Your task to perform on an android device: check android version Image 0: 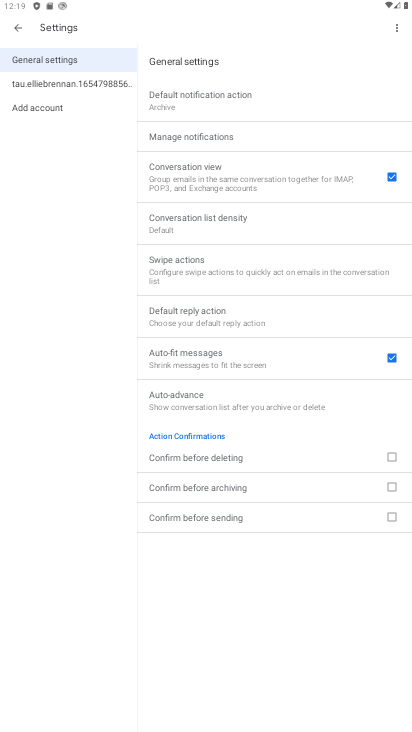
Step 0: press home button
Your task to perform on an android device: check android version Image 1: 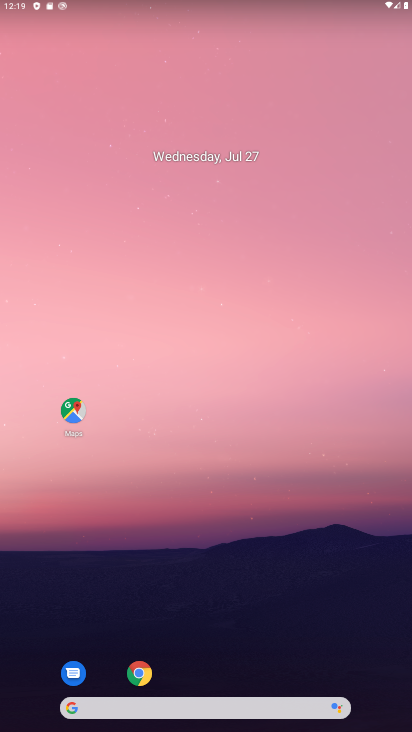
Step 1: drag from (325, 593) to (295, 124)
Your task to perform on an android device: check android version Image 2: 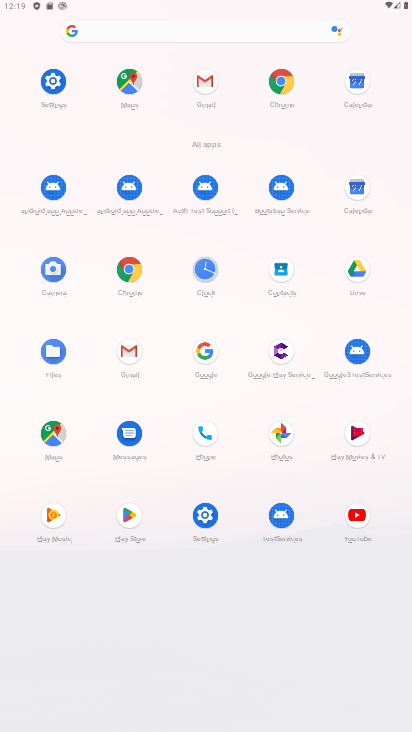
Step 2: click (44, 81)
Your task to perform on an android device: check android version Image 3: 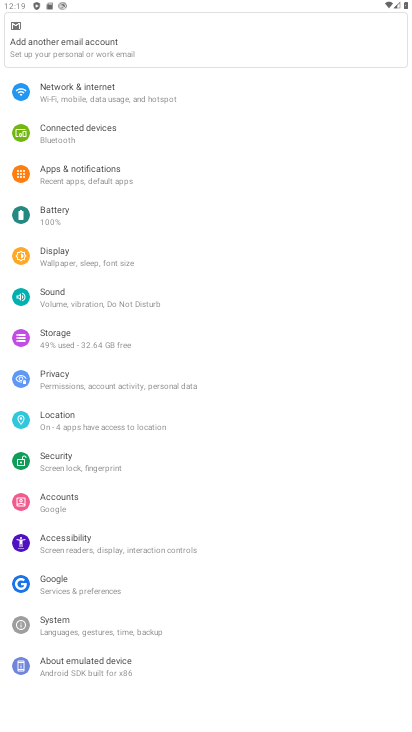
Step 3: click (87, 658)
Your task to perform on an android device: check android version Image 4: 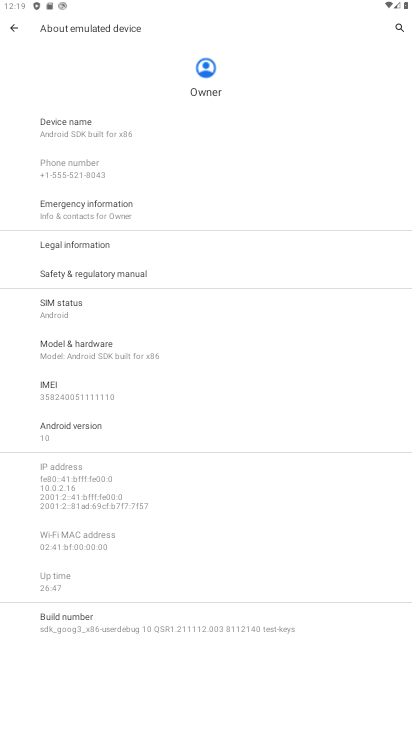
Step 4: click (49, 433)
Your task to perform on an android device: check android version Image 5: 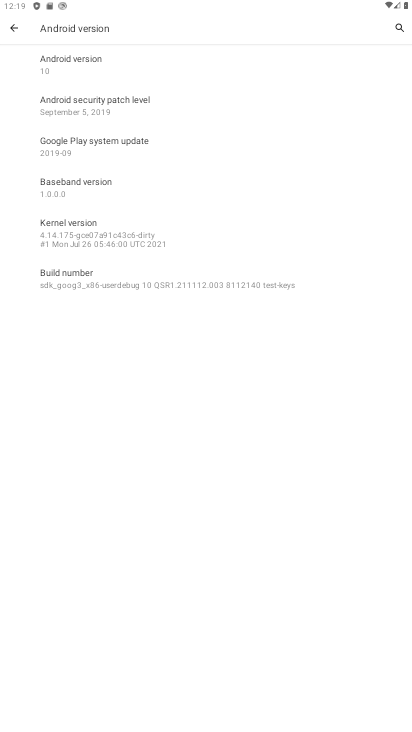
Step 5: task complete